Your task to perform on an android device: Open the map Image 0: 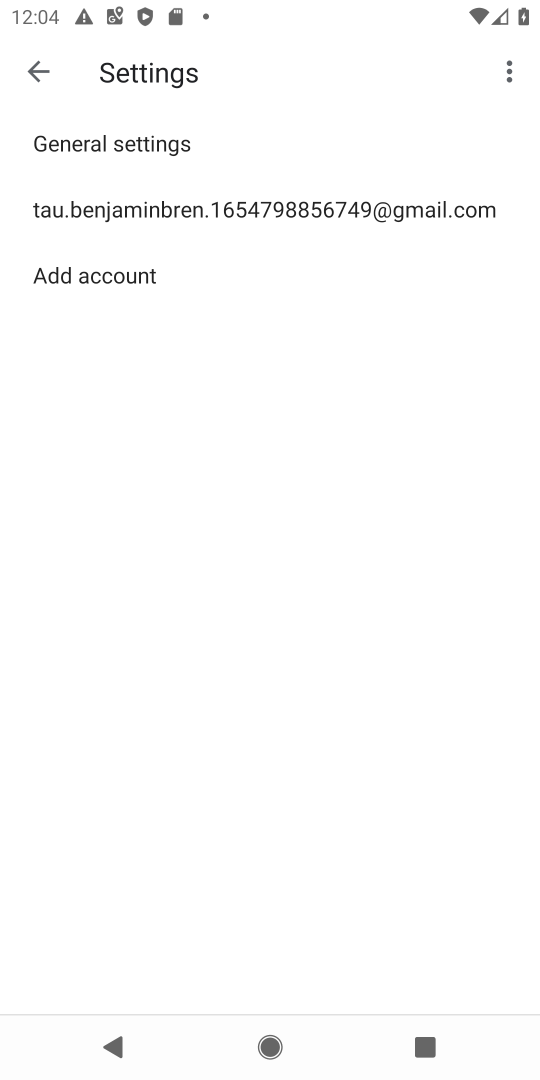
Step 0: press home button
Your task to perform on an android device: Open the map Image 1: 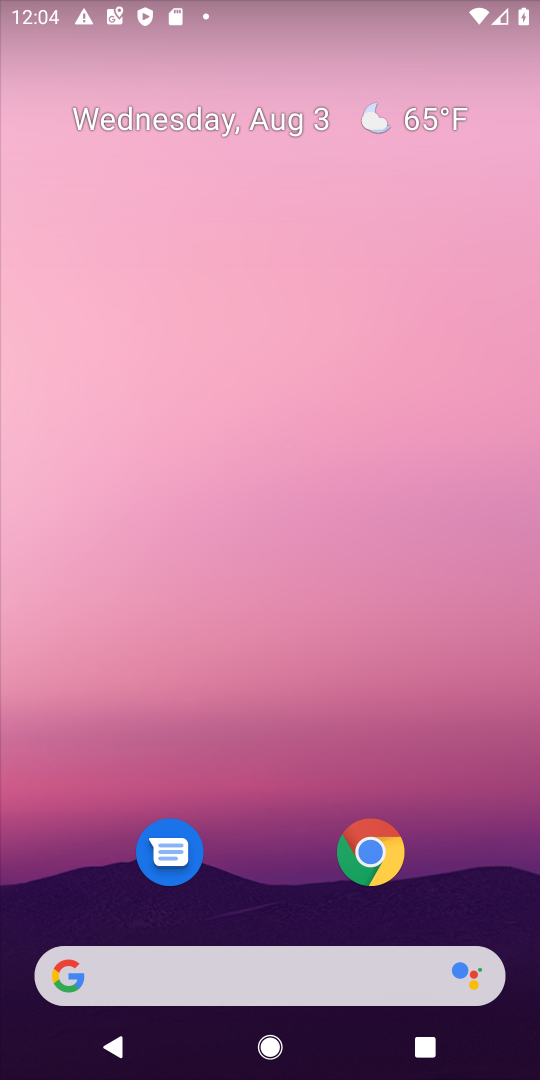
Step 1: drag from (514, 919) to (185, 0)
Your task to perform on an android device: Open the map Image 2: 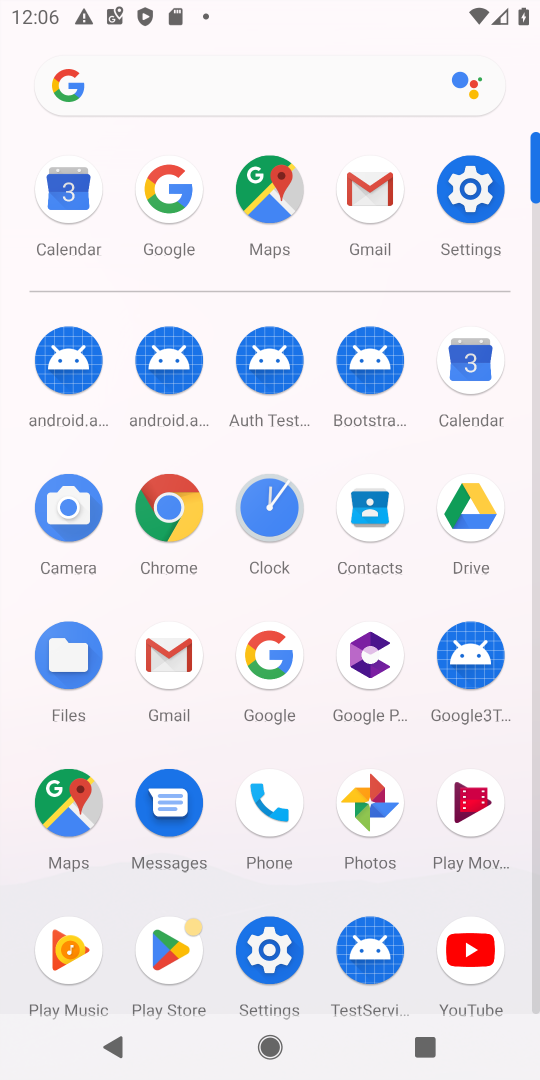
Step 2: click (63, 802)
Your task to perform on an android device: Open the map Image 3: 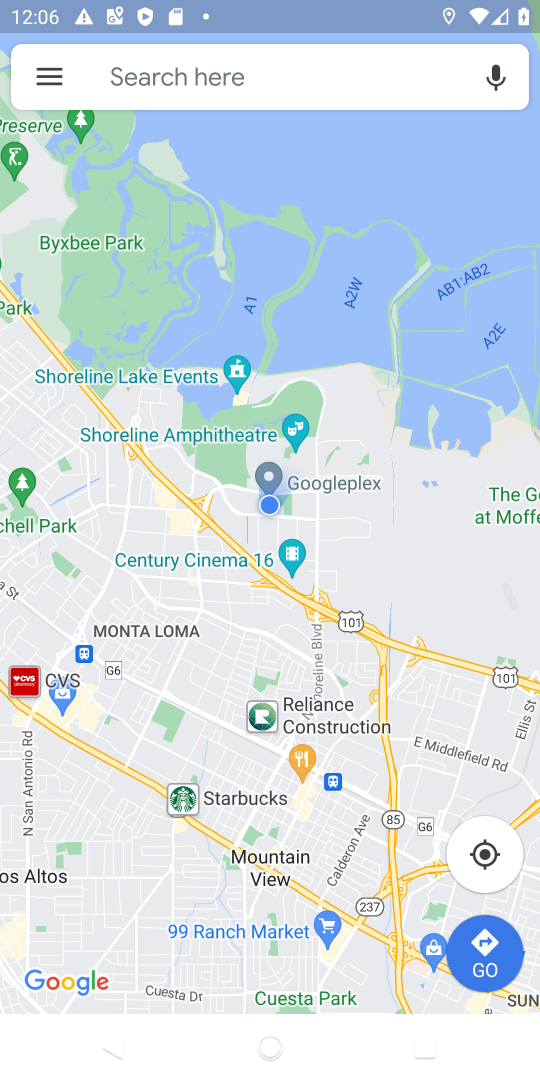
Step 3: task complete